Your task to perform on an android device: What is the news today? Image 0: 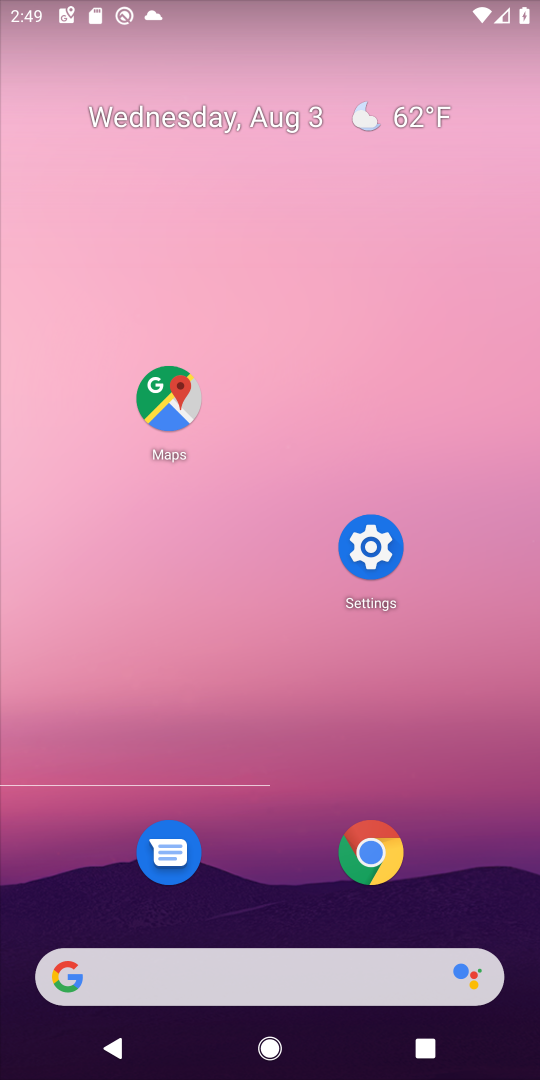
Step 0: press home button
Your task to perform on an android device: What is the news today? Image 1: 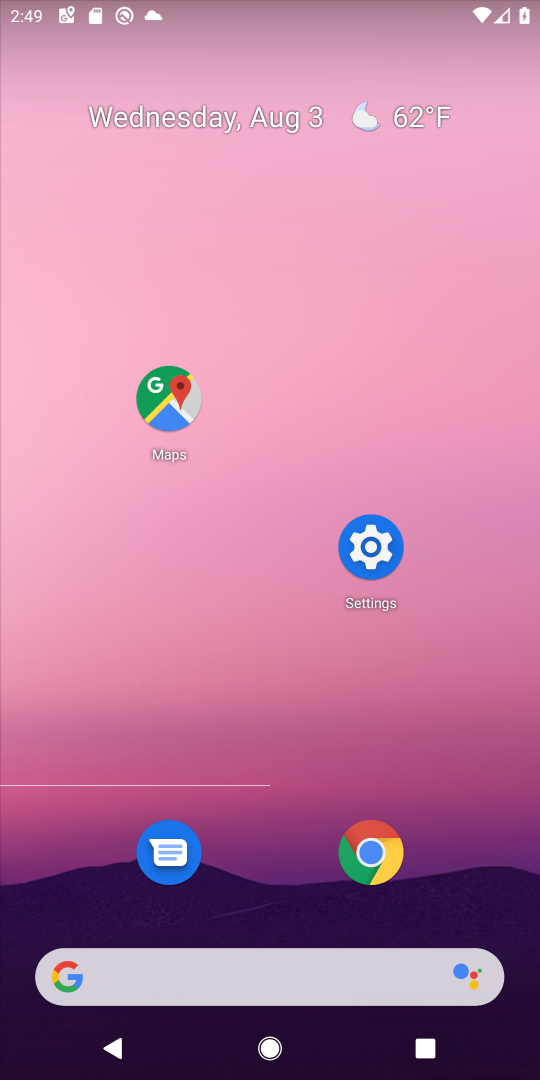
Step 1: click (165, 972)
Your task to perform on an android device: What is the news today? Image 2: 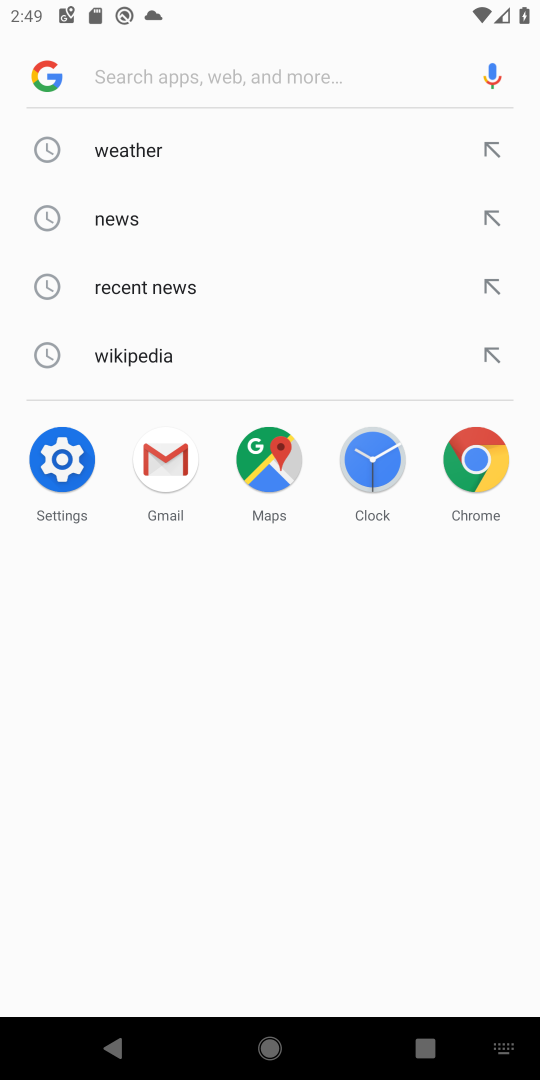
Step 2: click (113, 217)
Your task to perform on an android device: What is the news today? Image 3: 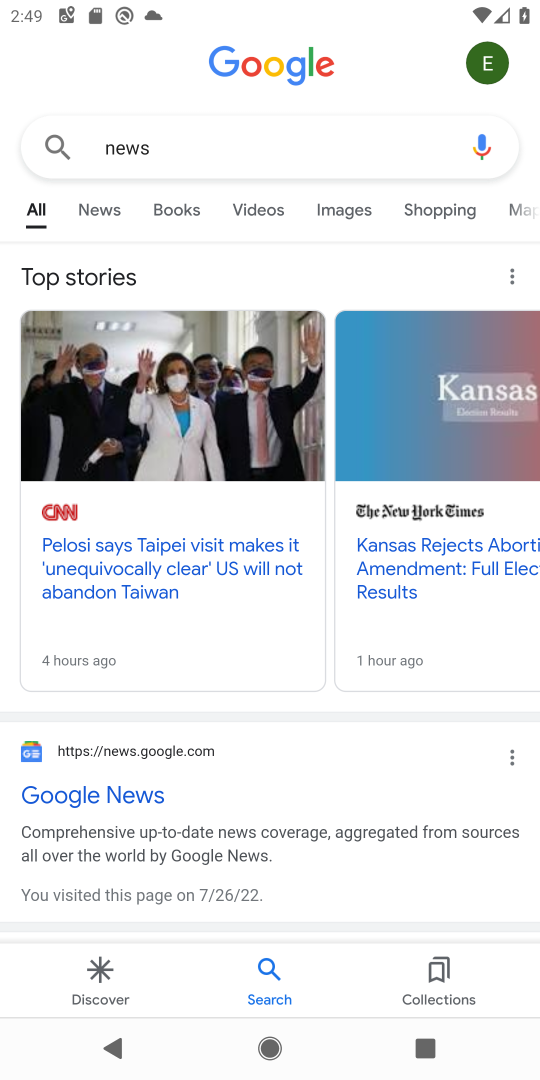
Step 3: click (104, 211)
Your task to perform on an android device: What is the news today? Image 4: 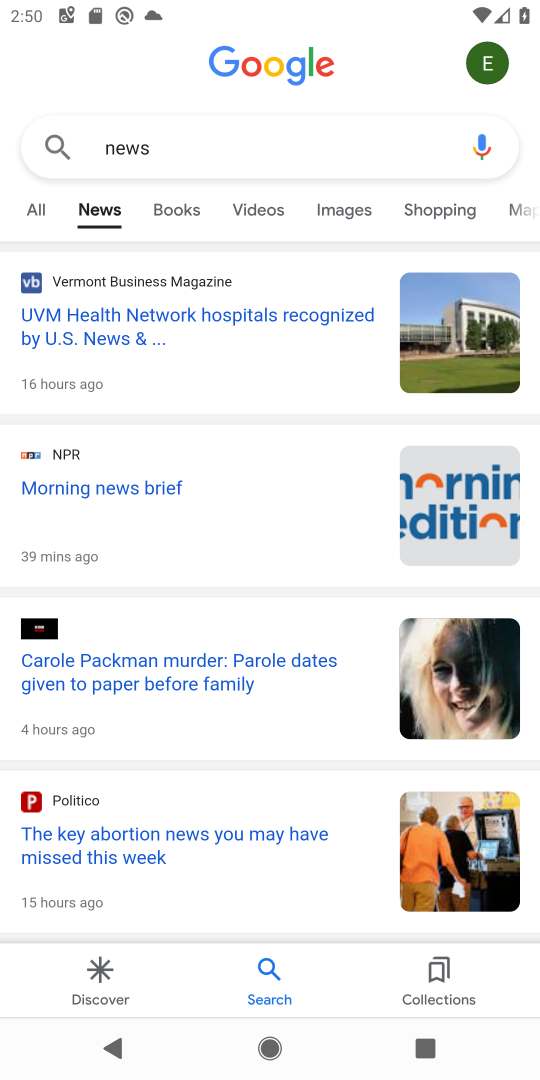
Step 4: task complete